Your task to perform on an android device: Open Youtube and go to the subscriptions tab Image 0: 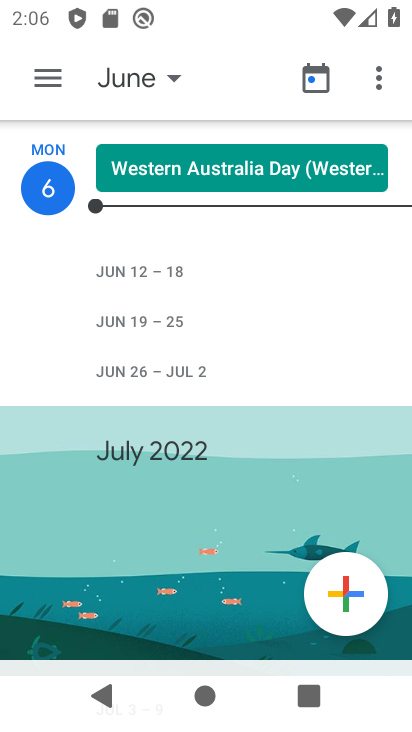
Step 0: press home button
Your task to perform on an android device: Open Youtube and go to the subscriptions tab Image 1: 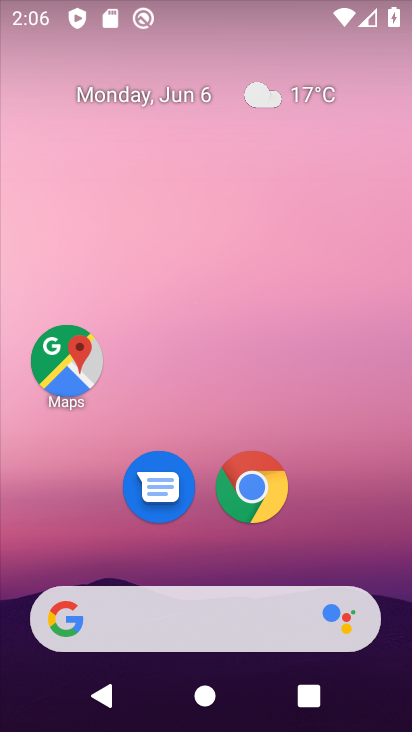
Step 1: drag from (385, 574) to (273, 135)
Your task to perform on an android device: Open Youtube and go to the subscriptions tab Image 2: 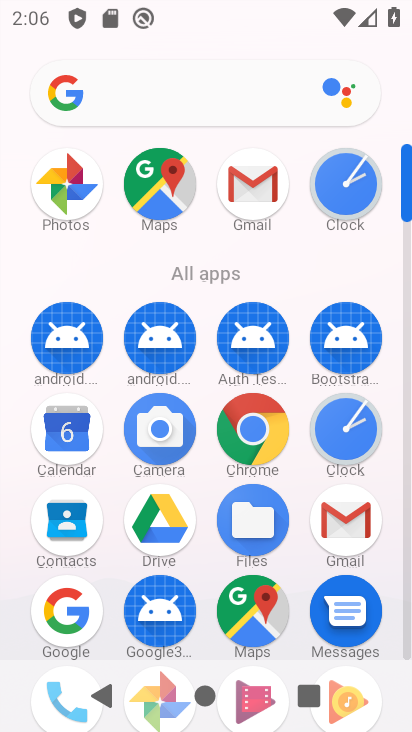
Step 2: click (408, 651)
Your task to perform on an android device: Open Youtube and go to the subscriptions tab Image 3: 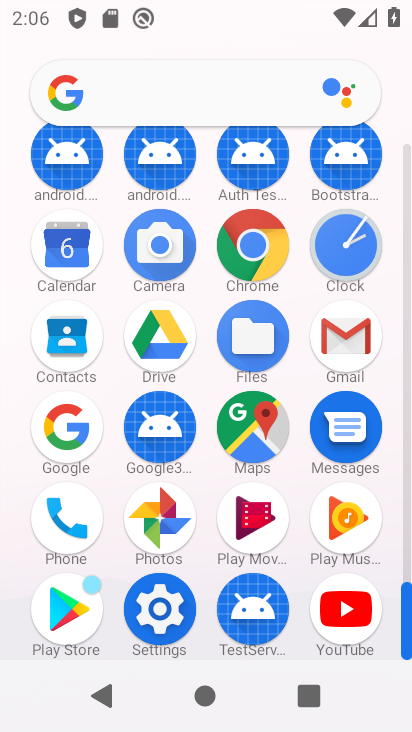
Step 3: click (351, 634)
Your task to perform on an android device: Open Youtube and go to the subscriptions tab Image 4: 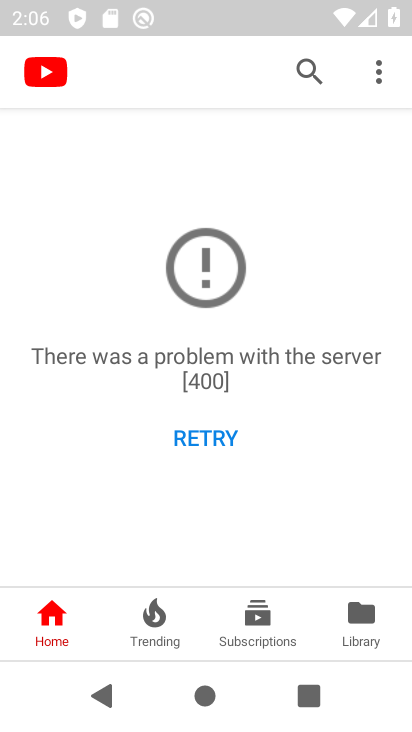
Step 4: click (283, 621)
Your task to perform on an android device: Open Youtube and go to the subscriptions tab Image 5: 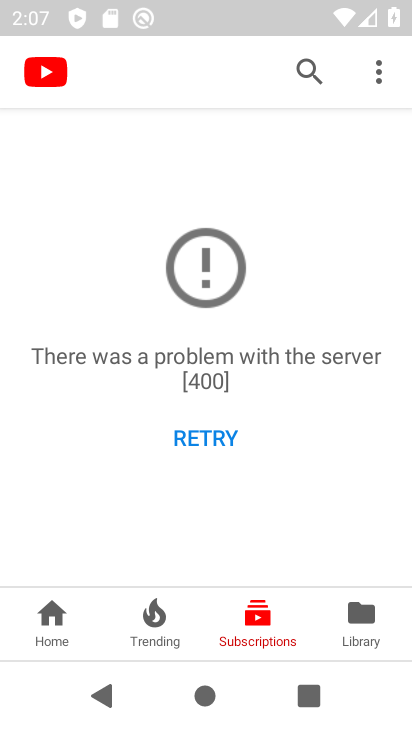
Step 5: task complete